Your task to perform on an android device: open sync settings in chrome Image 0: 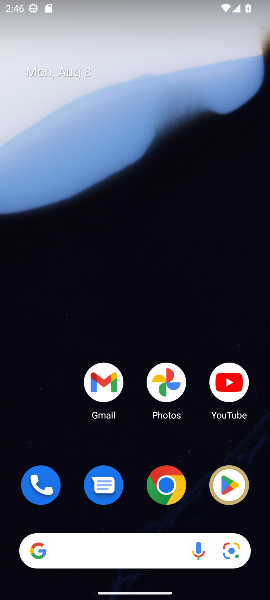
Step 0: click (103, 127)
Your task to perform on an android device: open sync settings in chrome Image 1: 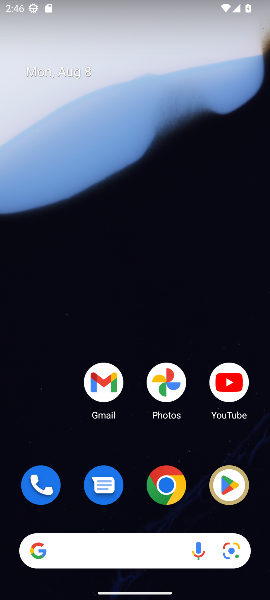
Step 1: drag from (146, 204) to (143, 130)
Your task to perform on an android device: open sync settings in chrome Image 2: 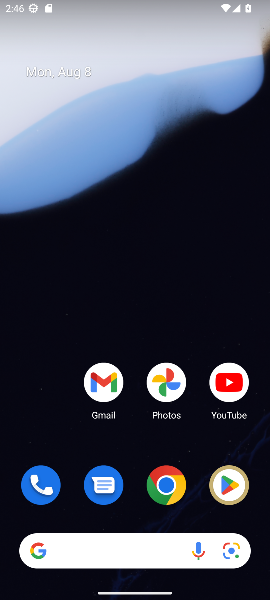
Step 2: drag from (201, 193) to (201, 141)
Your task to perform on an android device: open sync settings in chrome Image 3: 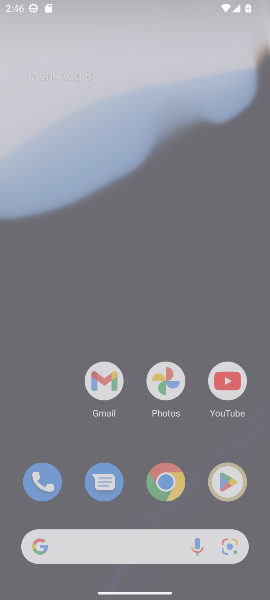
Step 3: drag from (174, 407) to (124, 179)
Your task to perform on an android device: open sync settings in chrome Image 4: 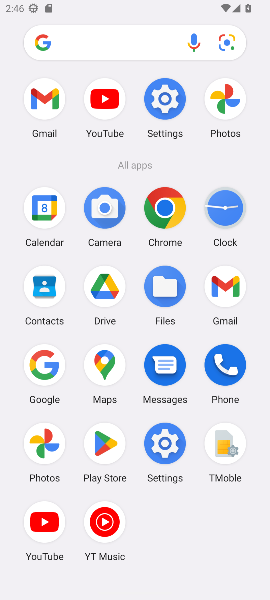
Step 4: drag from (175, 388) to (120, 112)
Your task to perform on an android device: open sync settings in chrome Image 5: 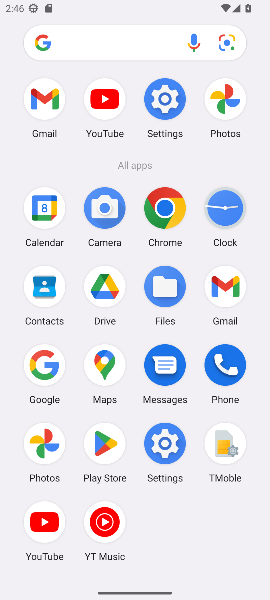
Step 5: click (158, 101)
Your task to perform on an android device: open sync settings in chrome Image 6: 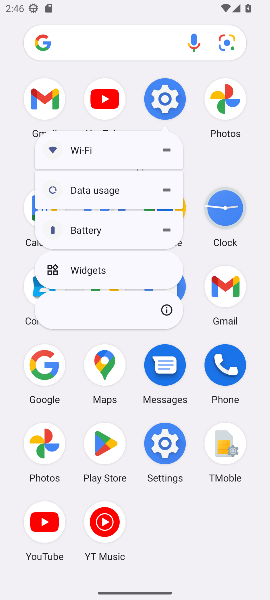
Step 6: click (162, 97)
Your task to perform on an android device: open sync settings in chrome Image 7: 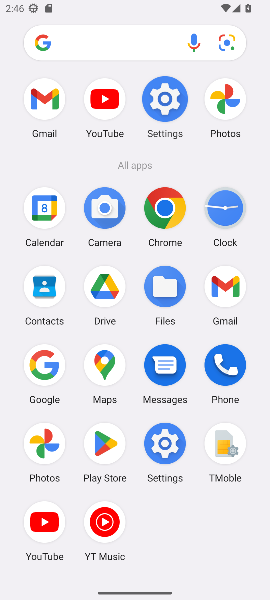
Step 7: click (162, 97)
Your task to perform on an android device: open sync settings in chrome Image 8: 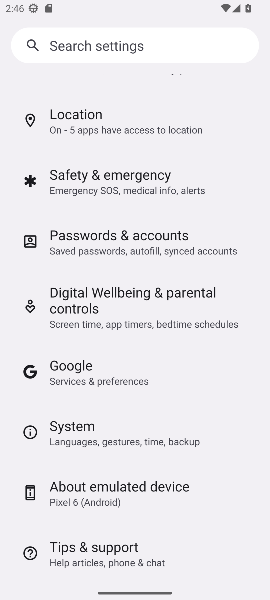
Step 8: click (62, 47)
Your task to perform on an android device: open sync settings in chrome Image 9: 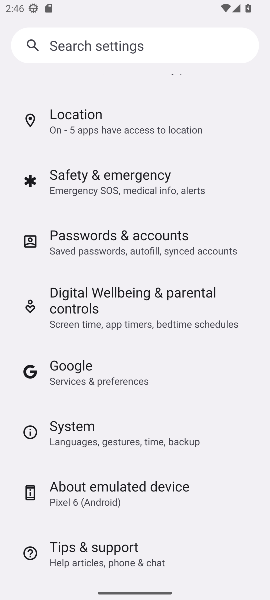
Step 9: click (62, 47)
Your task to perform on an android device: open sync settings in chrome Image 10: 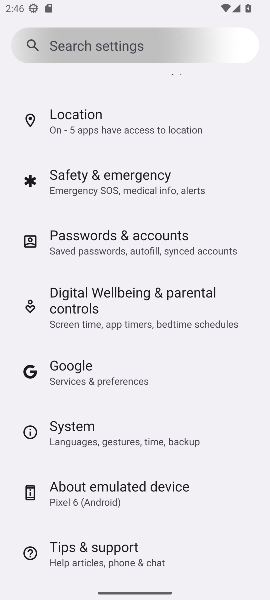
Step 10: click (62, 47)
Your task to perform on an android device: open sync settings in chrome Image 11: 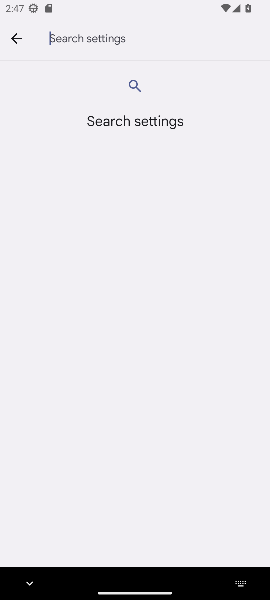
Step 11: click (11, 33)
Your task to perform on an android device: open sync settings in chrome Image 12: 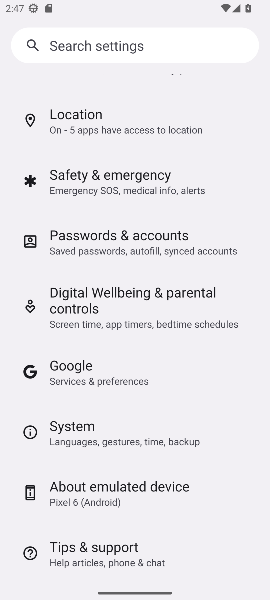
Step 12: press back button
Your task to perform on an android device: open sync settings in chrome Image 13: 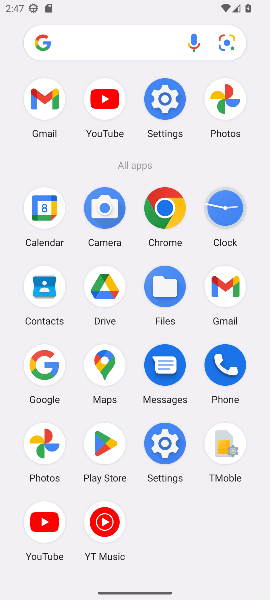
Step 13: click (155, 214)
Your task to perform on an android device: open sync settings in chrome Image 14: 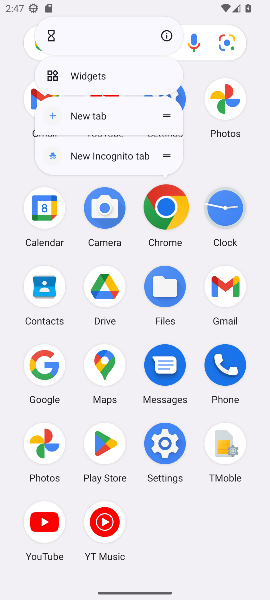
Step 14: click (158, 213)
Your task to perform on an android device: open sync settings in chrome Image 15: 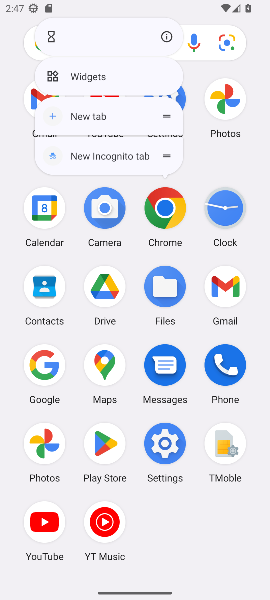
Step 15: click (158, 213)
Your task to perform on an android device: open sync settings in chrome Image 16: 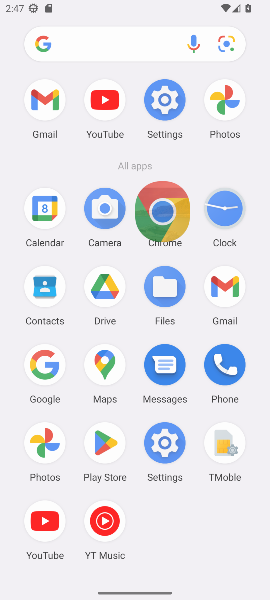
Step 16: click (158, 213)
Your task to perform on an android device: open sync settings in chrome Image 17: 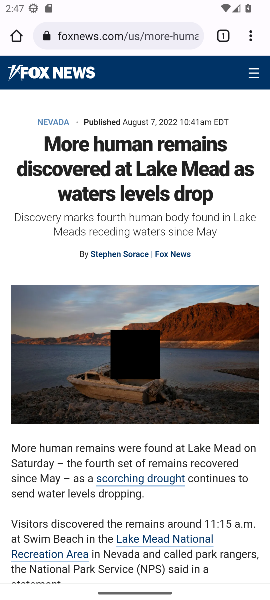
Step 17: click (254, 29)
Your task to perform on an android device: open sync settings in chrome Image 18: 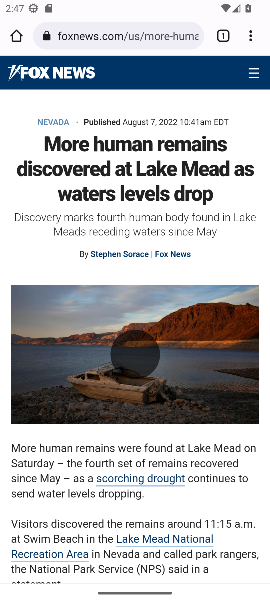
Step 18: drag from (102, 453) to (102, 230)
Your task to perform on an android device: open sync settings in chrome Image 19: 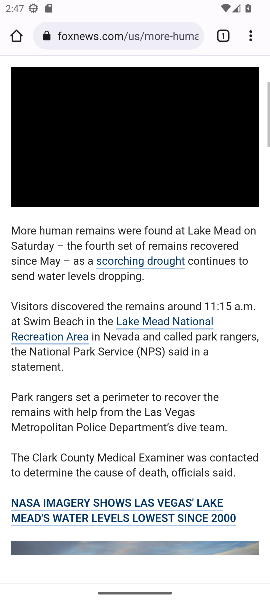
Step 19: drag from (163, 465) to (142, 257)
Your task to perform on an android device: open sync settings in chrome Image 20: 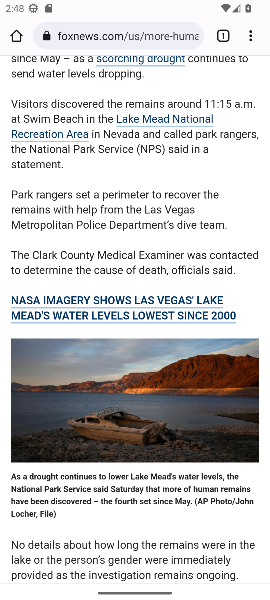
Step 20: drag from (153, 530) to (106, 174)
Your task to perform on an android device: open sync settings in chrome Image 21: 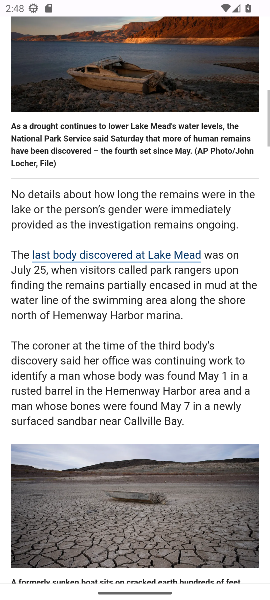
Step 21: drag from (140, 453) to (140, 244)
Your task to perform on an android device: open sync settings in chrome Image 22: 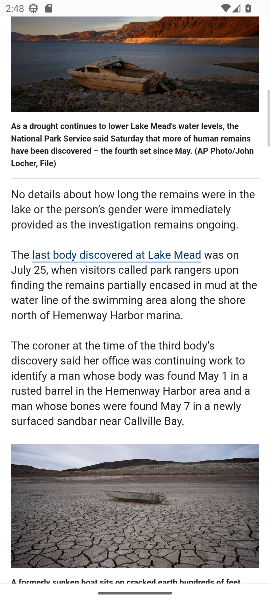
Step 22: drag from (149, 340) to (126, 107)
Your task to perform on an android device: open sync settings in chrome Image 23: 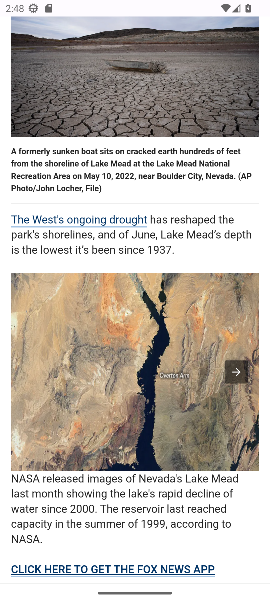
Step 23: drag from (227, 336) to (82, 374)
Your task to perform on an android device: open sync settings in chrome Image 24: 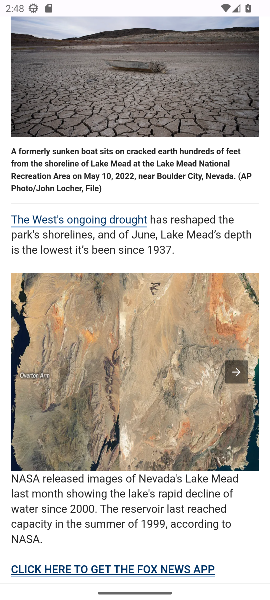
Step 24: drag from (114, 418) to (149, 447)
Your task to perform on an android device: open sync settings in chrome Image 25: 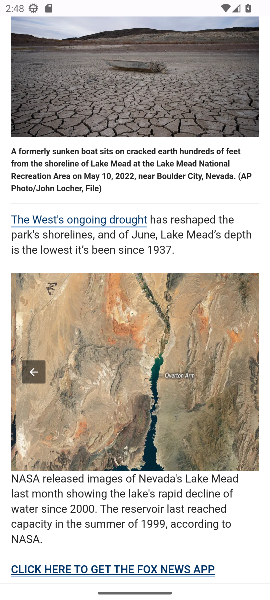
Step 25: drag from (167, 207) to (170, 351)
Your task to perform on an android device: open sync settings in chrome Image 26: 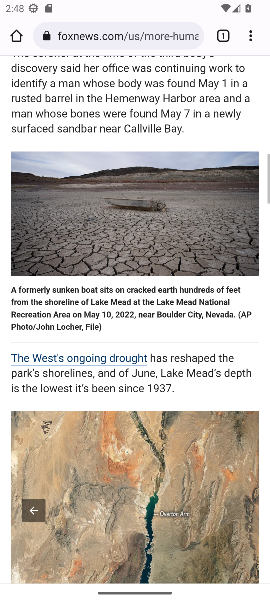
Step 26: drag from (192, 255) to (192, 393)
Your task to perform on an android device: open sync settings in chrome Image 27: 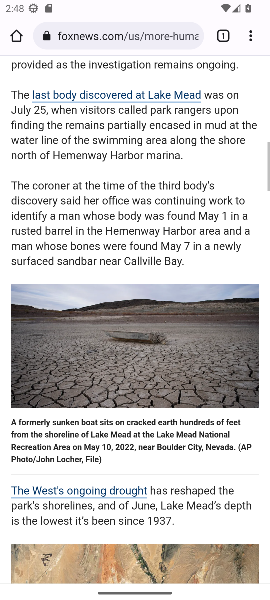
Step 27: drag from (159, 156) to (149, 402)
Your task to perform on an android device: open sync settings in chrome Image 28: 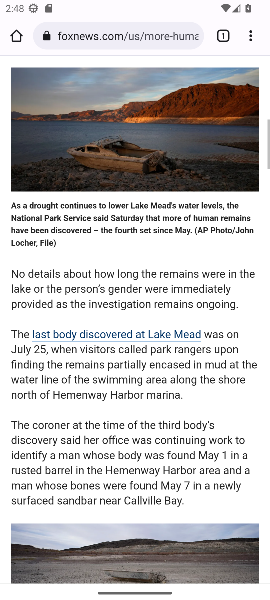
Step 28: drag from (131, 121) to (134, 376)
Your task to perform on an android device: open sync settings in chrome Image 29: 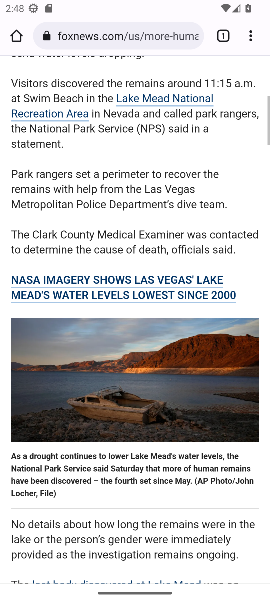
Step 29: click (166, 273)
Your task to perform on an android device: open sync settings in chrome Image 30: 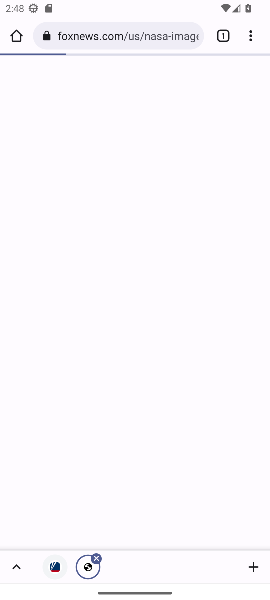
Step 30: click (247, 37)
Your task to perform on an android device: open sync settings in chrome Image 31: 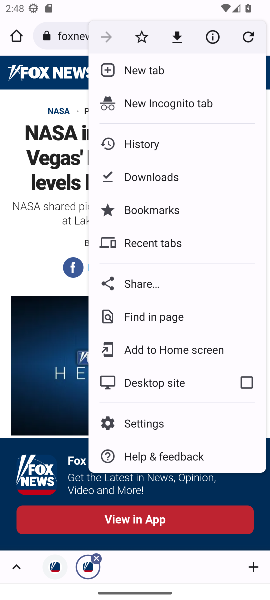
Step 31: click (146, 421)
Your task to perform on an android device: open sync settings in chrome Image 32: 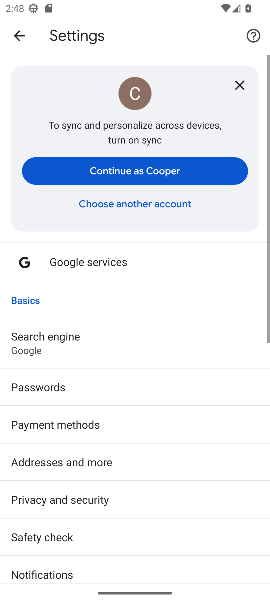
Step 32: drag from (9, 467) to (47, 151)
Your task to perform on an android device: open sync settings in chrome Image 33: 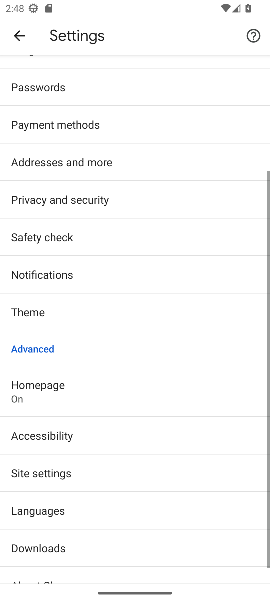
Step 33: drag from (51, 434) to (53, 173)
Your task to perform on an android device: open sync settings in chrome Image 34: 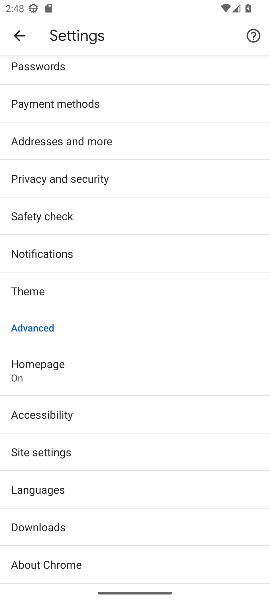
Step 34: click (34, 458)
Your task to perform on an android device: open sync settings in chrome Image 35: 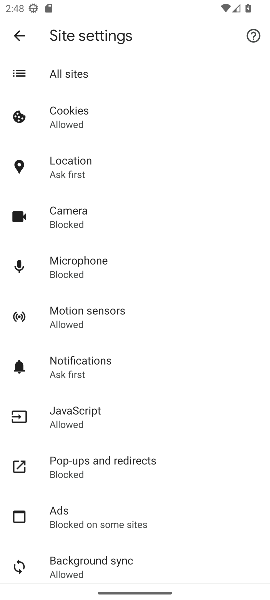
Step 35: click (68, 561)
Your task to perform on an android device: open sync settings in chrome Image 36: 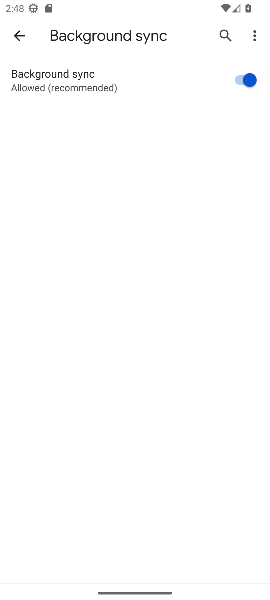
Step 36: task complete